Your task to perform on an android device: What's the weather going to be tomorrow? Image 0: 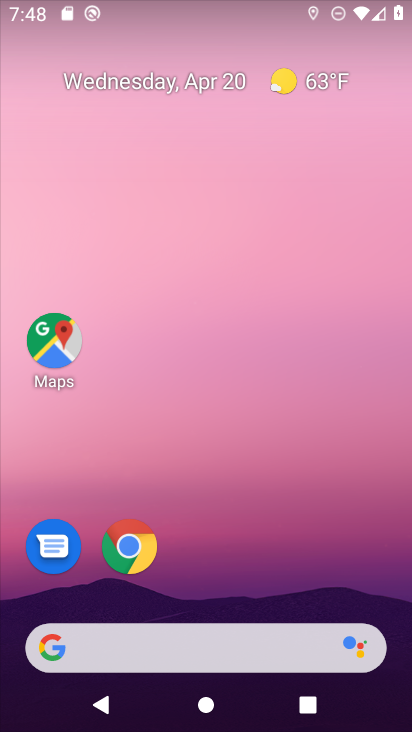
Step 0: click (308, 79)
Your task to perform on an android device: What's the weather going to be tomorrow? Image 1: 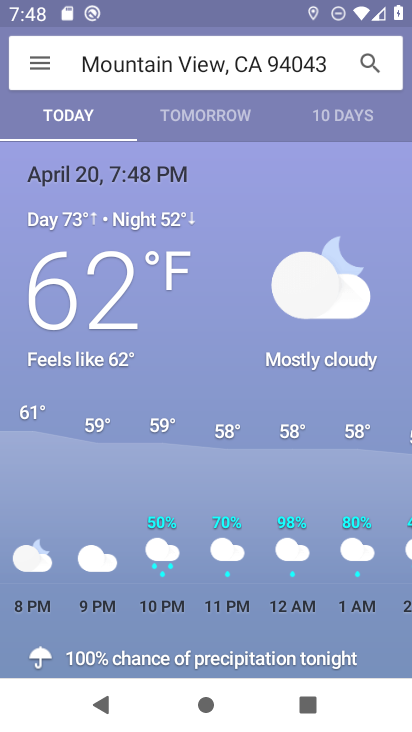
Step 1: click (228, 112)
Your task to perform on an android device: What's the weather going to be tomorrow? Image 2: 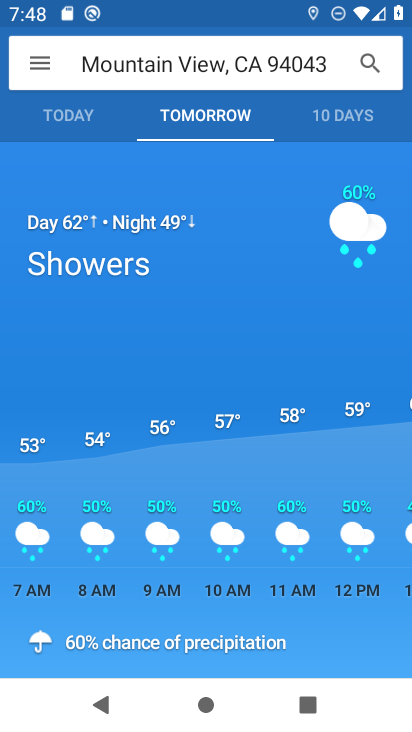
Step 2: task complete